Your task to perform on an android device: View the shopping cart on walmart. Add razer blade to the cart on walmart, then select checkout. Image 0: 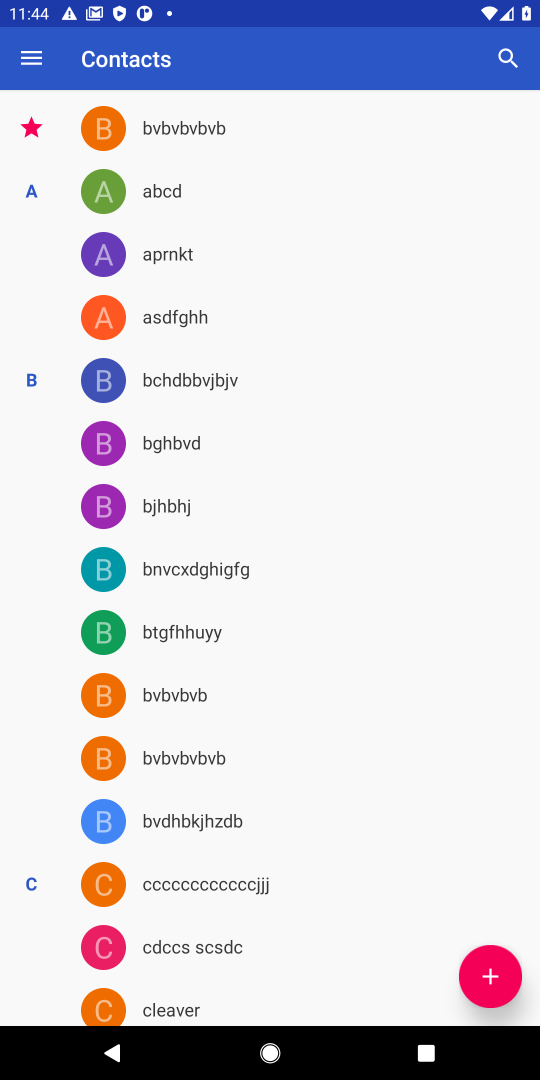
Step 0: press home button
Your task to perform on an android device: View the shopping cart on walmart. Add razer blade to the cart on walmart, then select checkout. Image 1: 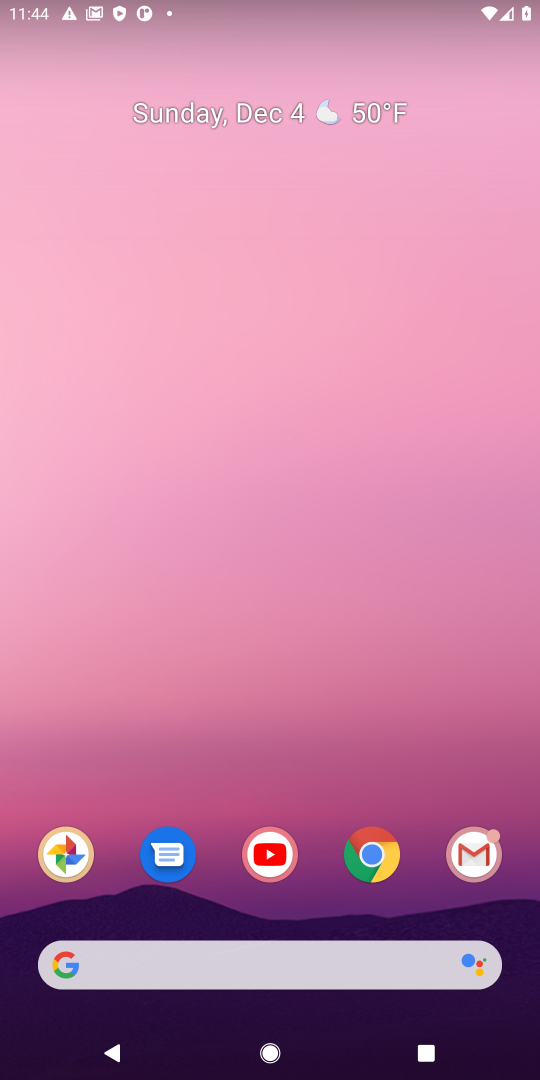
Step 1: click (293, 954)
Your task to perform on an android device: View the shopping cart on walmart. Add razer blade to the cart on walmart, then select checkout. Image 2: 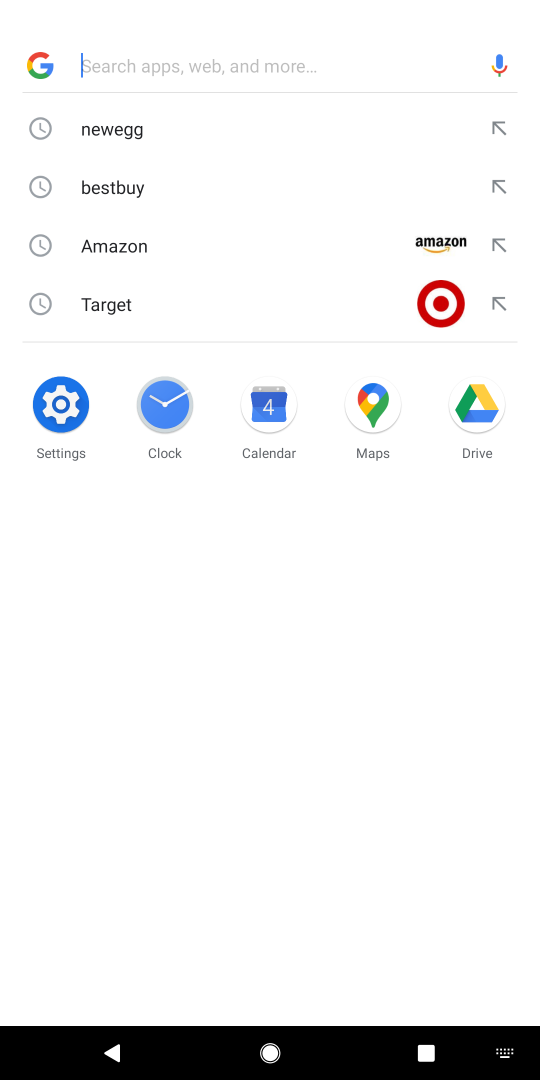
Step 2: type "razer"
Your task to perform on an android device: View the shopping cart on walmart. Add razer blade to the cart on walmart, then select checkout. Image 3: 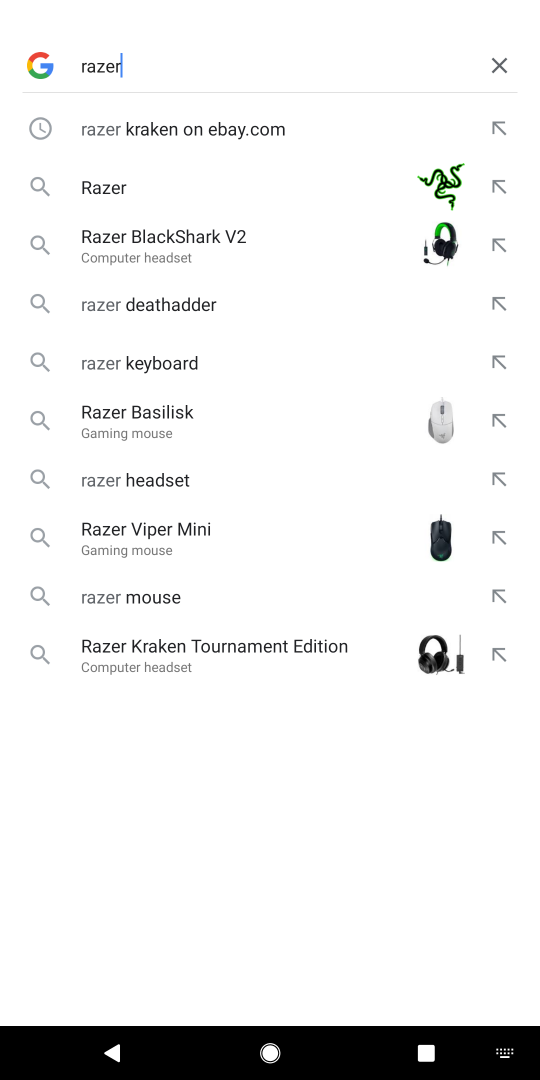
Step 3: click (224, 119)
Your task to perform on an android device: View the shopping cart on walmart. Add razer blade to the cart on walmart, then select checkout. Image 4: 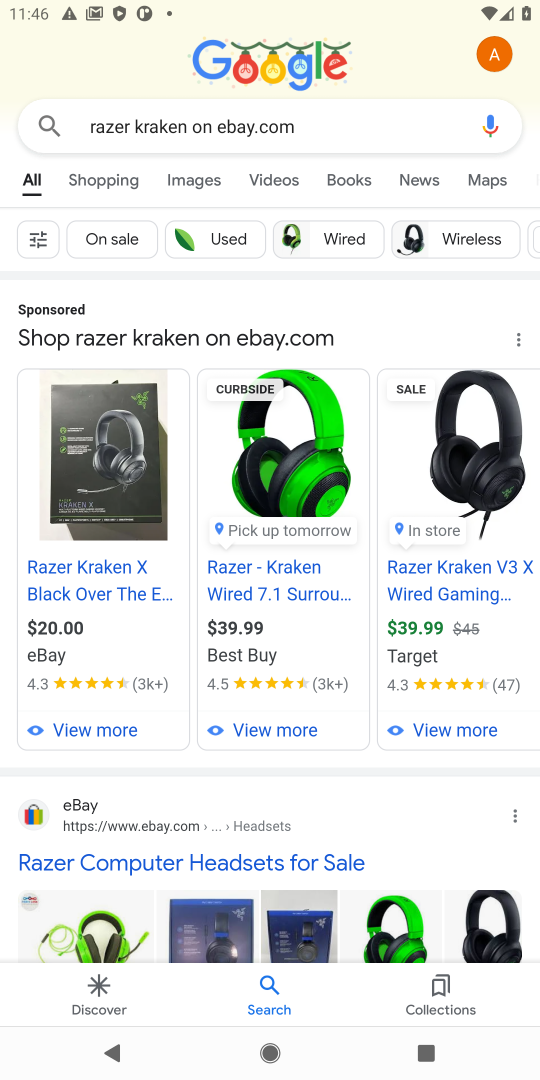
Step 4: task complete